Your task to perform on an android device: Search for pizza restaurants on Maps Image 0: 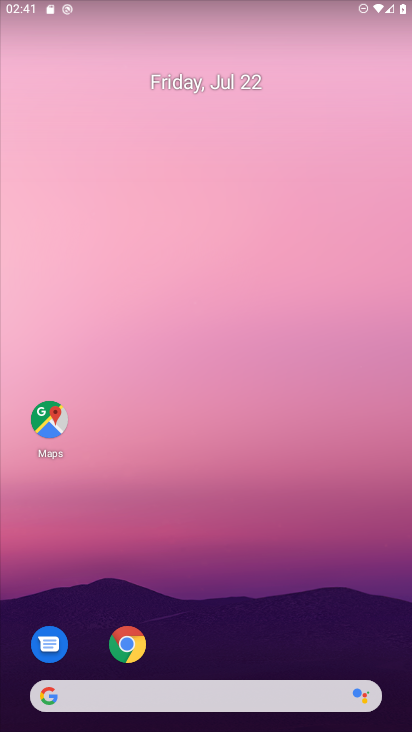
Step 0: click (49, 423)
Your task to perform on an android device: Search for pizza restaurants on Maps Image 1: 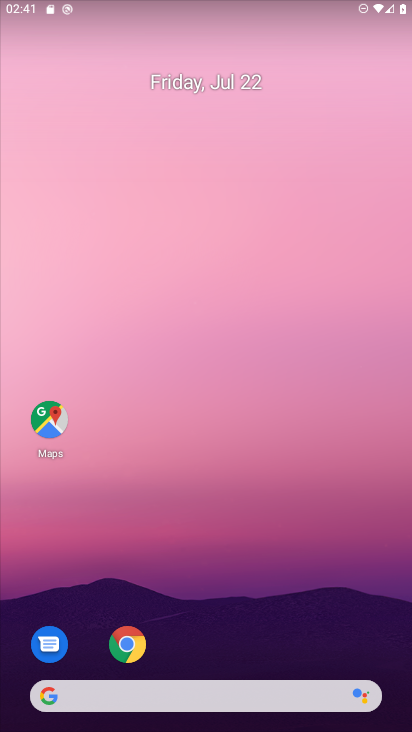
Step 1: click (49, 423)
Your task to perform on an android device: Search for pizza restaurants on Maps Image 2: 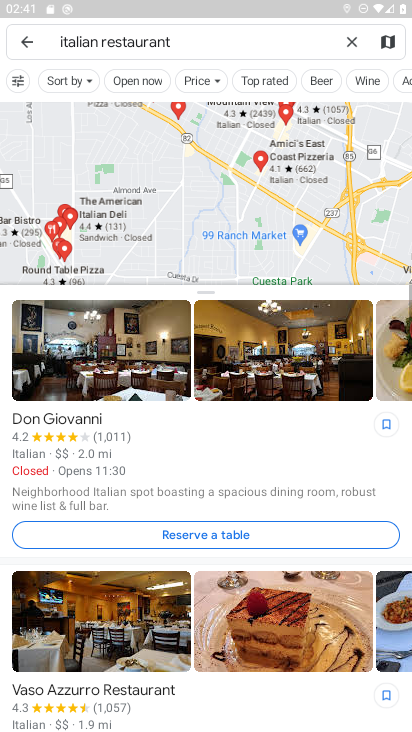
Step 2: click (354, 42)
Your task to perform on an android device: Search for pizza restaurants on Maps Image 3: 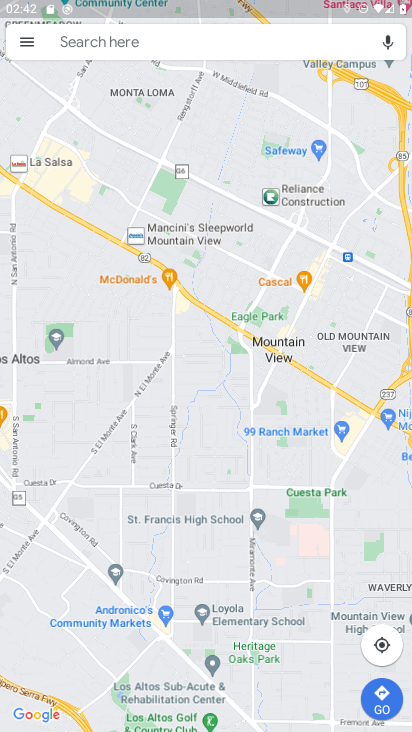
Step 3: click (264, 44)
Your task to perform on an android device: Search for pizza restaurants on Maps Image 4: 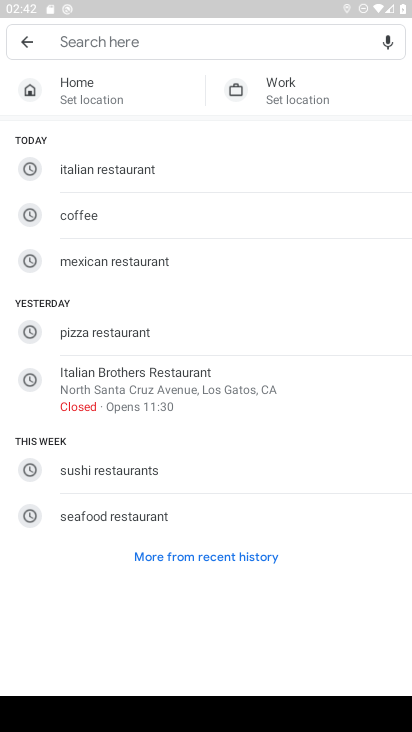
Step 4: click (145, 336)
Your task to perform on an android device: Search for pizza restaurants on Maps Image 5: 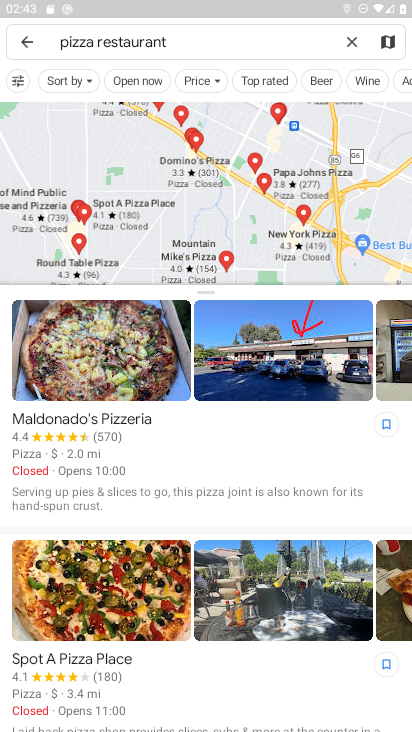
Step 5: task complete